Your task to perform on an android device: Show the shopping cart on bestbuy.com. Add "apple airpods" to the cart on bestbuy.com, then select checkout. Image 0: 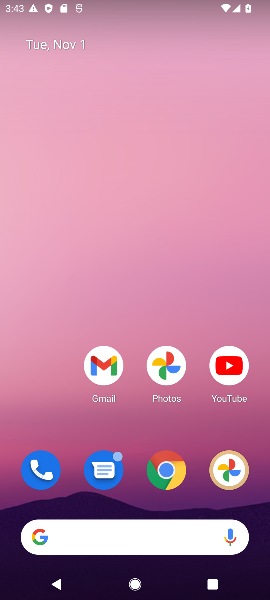
Step 0: click (167, 477)
Your task to perform on an android device: Show the shopping cart on bestbuy.com. Add "apple airpods" to the cart on bestbuy.com, then select checkout. Image 1: 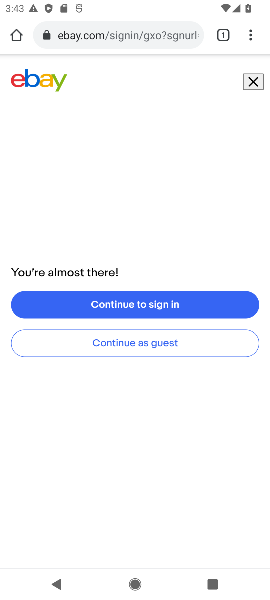
Step 1: click (161, 34)
Your task to perform on an android device: Show the shopping cart on bestbuy.com. Add "apple airpods" to the cart on bestbuy.com, then select checkout. Image 2: 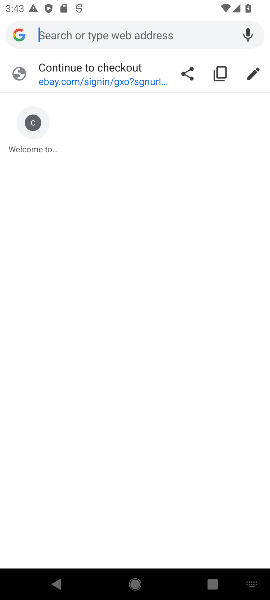
Step 2: type "bestbuy.com"
Your task to perform on an android device: Show the shopping cart on bestbuy.com. Add "apple airpods" to the cart on bestbuy.com, then select checkout. Image 3: 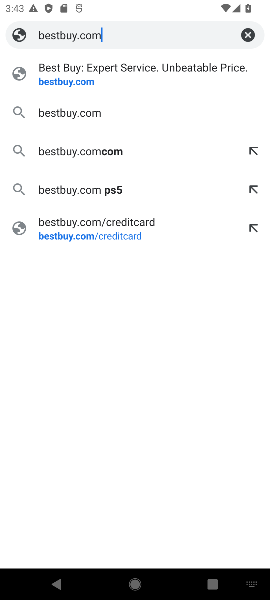
Step 3: press enter
Your task to perform on an android device: Show the shopping cart on bestbuy.com. Add "apple airpods" to the cart on bestbuy.com, then select checkout. Image 4: 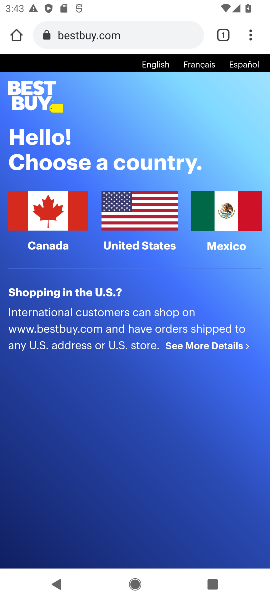
Step 4: click (152, 213)
Your task to perform on an android device: Show the shopping cart on bestbuy.com. Add "apple airpods" to the cart on bestbuy.com, then select checkout. Image 5: 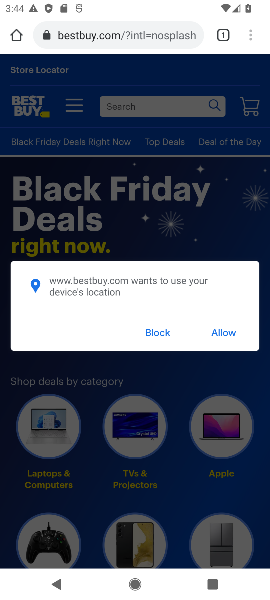
Step 5: click (222, 334)
Your task to perform on an android device: Show the shopping cart on bestbuy.com. Add "apple airpods" to the cart on bestbuy.com, then select checkout. Image 6: 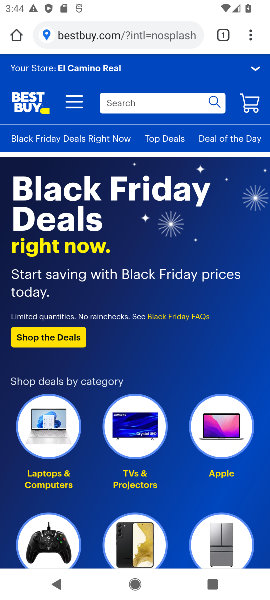
Step 6: click (157, 108)
Your task to perform on an android device: Show the shopping cart on bestbuy.com. Add "apple airpods" to the cart on bestbuy.com, then select checkout. Image 7: 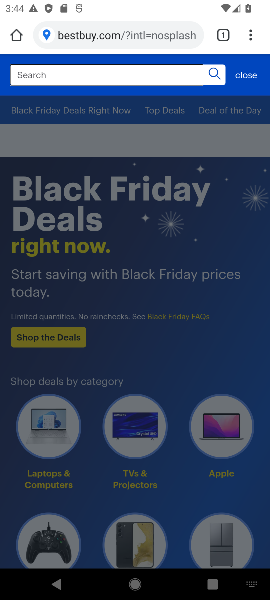
Step 7: type "apple airpods"
Your task to perform on an android device: Show the shopping cart on bestbuy.com. Add "apple airpods" to the cart on bestbuy.com, then select checkout. Image 8: 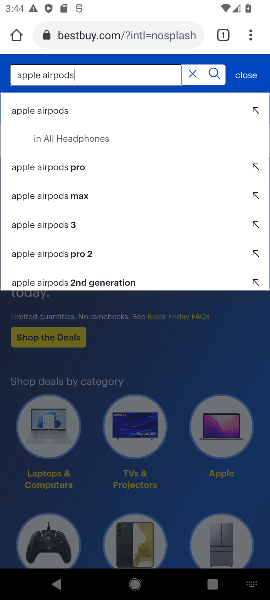
Step 8: press enter
Your task to perform on an android device: Show the shopping cart on bestbuy.com. Add "apple airpods" to the cart on bestbuy.com, then select checkout. Image 9: 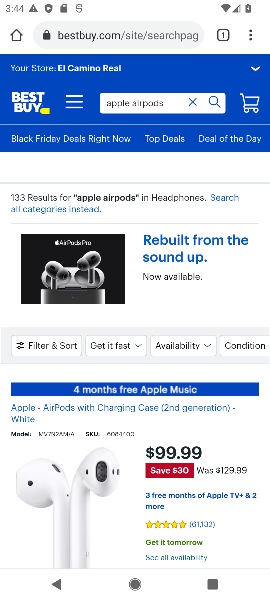
Step 9: click (70, 518)
Your task to perform on an android device: Show the shopping cart on bestbuy.com. Add "apple airpods" to the cart on bestbuy.com, then select checkout. Image 10: 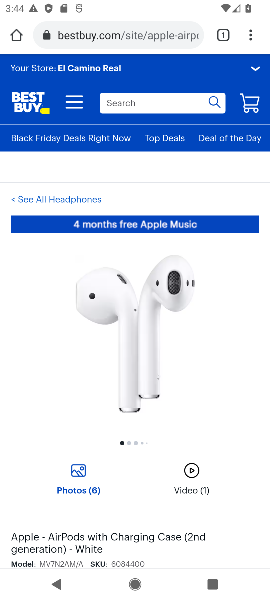
Step 10: drag from (147, 478) to (67, 42)
Your task to perform on an android device: Show the shopping cart on bestbuy.com. Add "apple airpods" to the cart on bestbuy.com, then select checkout. Image 11: 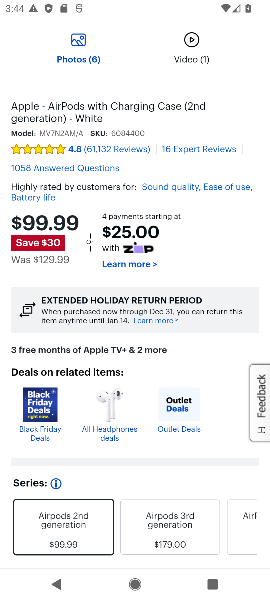
Step 11: drag from (188, 477) to (151, 239)
Your task to perform on an android device: Show the shopping cart on bestbuy.com. Add "apple airpods" to the cart on bestbuy.com, then select checkout. Image 12: 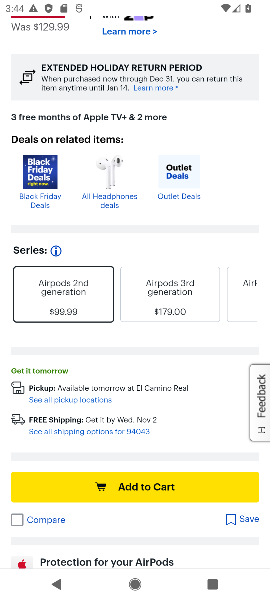
Step 12: click (132, 485)
Your task to perform on an android device: Show the shopping cart on bestbuy.com. Add "apple airpods" to the cart on bestbuy.com, then select checkout. Image 13: 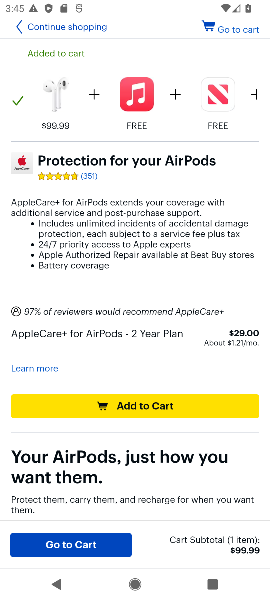
Step 13: click (87, 547)
Your task to perform on an android device: Show the shopping cart on bestbuy.com. Add "apple airpods" to the cart on bestbuy.com, then select checkout. Image 14: 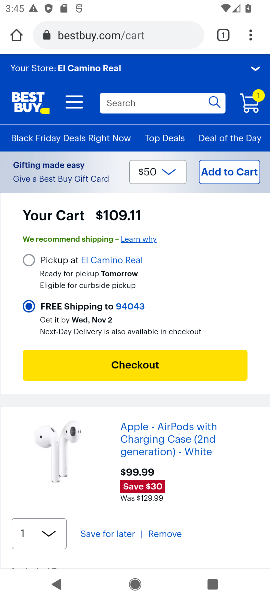
Step 14: click (156, 365)
Your task to perform on an android device: Show the shopping cart on bestbuy.com. Add "apple airpods" to the cart on bestbuy.com, then select checkout. Image 15: 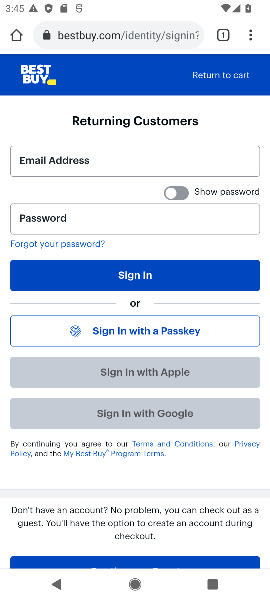
Step 15: task complete